Your task to perform on an android device: What's on my calendar tomorrow? Image 0: 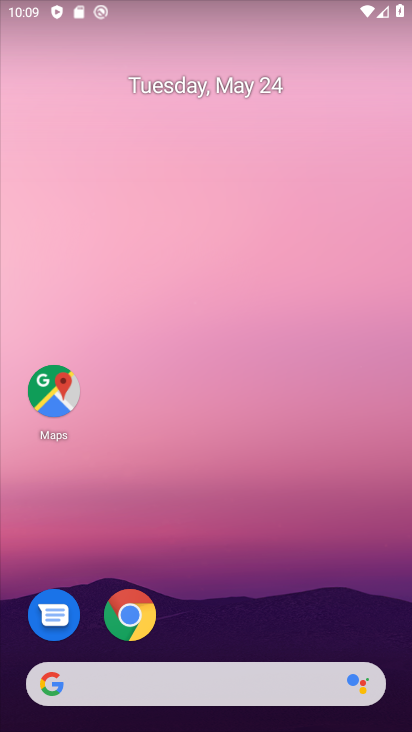
Step 0: drag from (270, 572) to (269, 112)
Your task to perform on an android device: What's on my calendar tomorrow? Image 1: 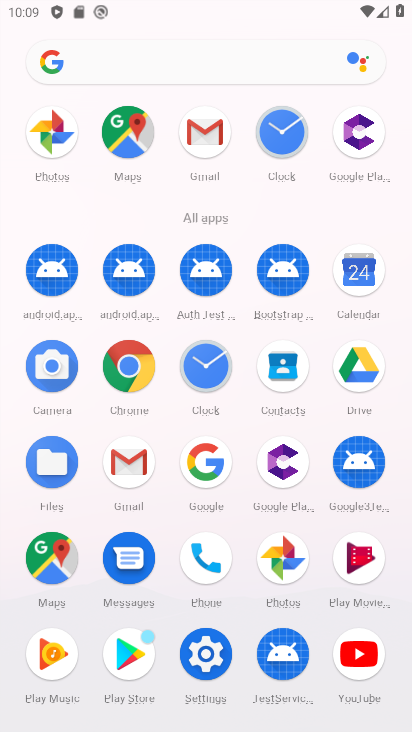
Step 1: click (360, 272)
Your task to perform on an android device: What's on my calendar tomorrow? Image 2: 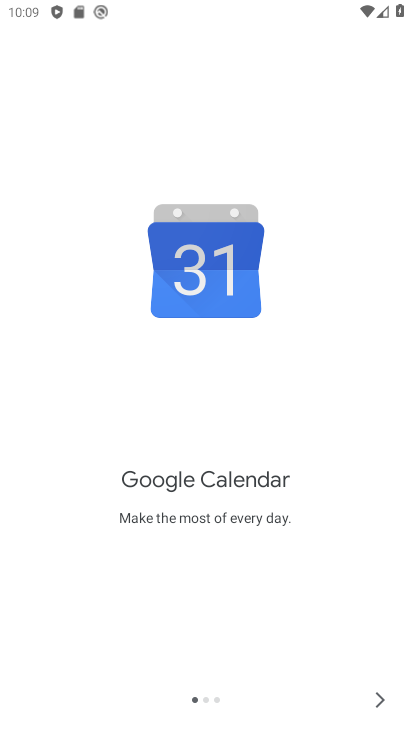
Step 2: click (371, 695)
Your task to perform on an android device: What's on my calendar tomorrow? Image 3: 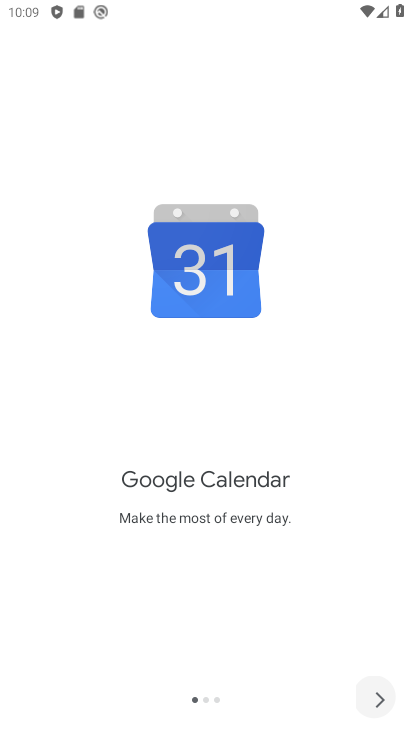
Step 3: click (369, 694)
Your task to perform on an android device: What's on my calendar tomorrow? Image 4: 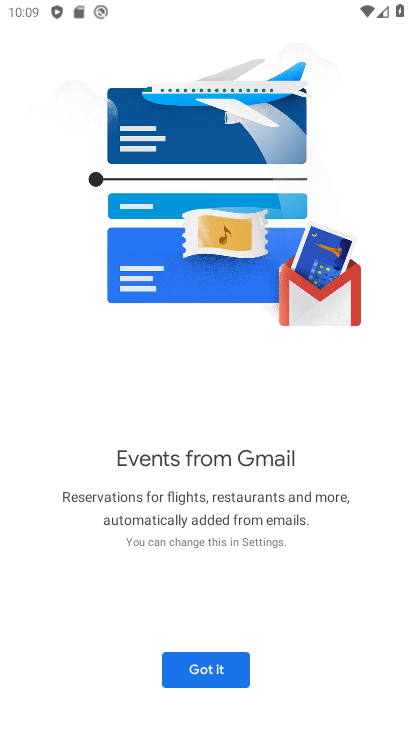
Step 4: click (219, 666)
Your task to perform on an android device: What's on my calendar tomorrow? Image 5: 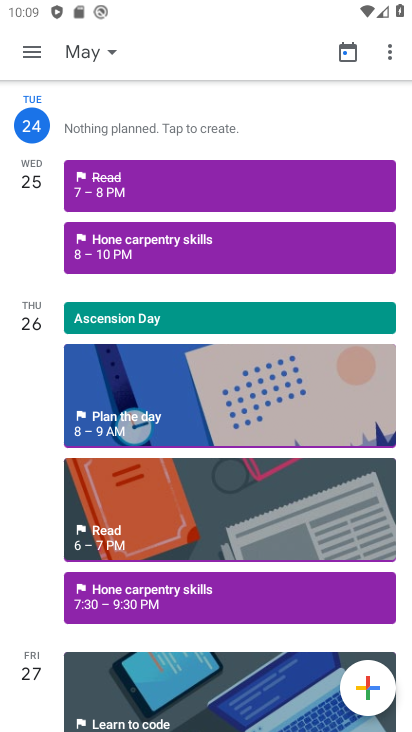
Step 5: task complete